Your task to perform on an android device: View the shopping cart on costco.com. Search for asus rog on costco.com, select the first entry, add it to the cart, then select checkout. Image 0: 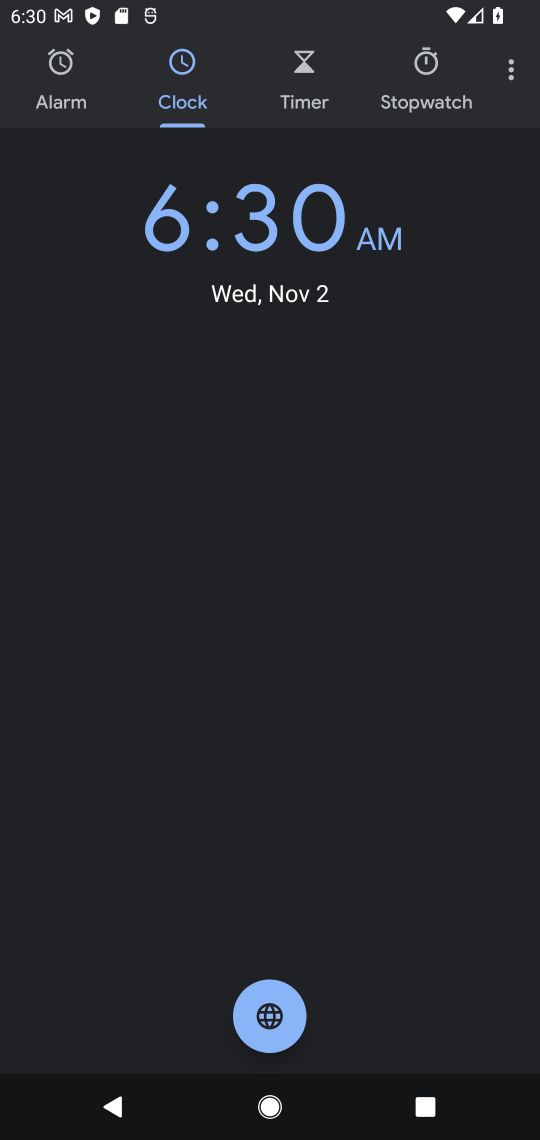
Step 0: press home button
Your task to perform on an android device: View the shopping cart on costco.com. Search for asus rog on costco.com, select the first entry, add it to the cart, then select checkout. Image 1: 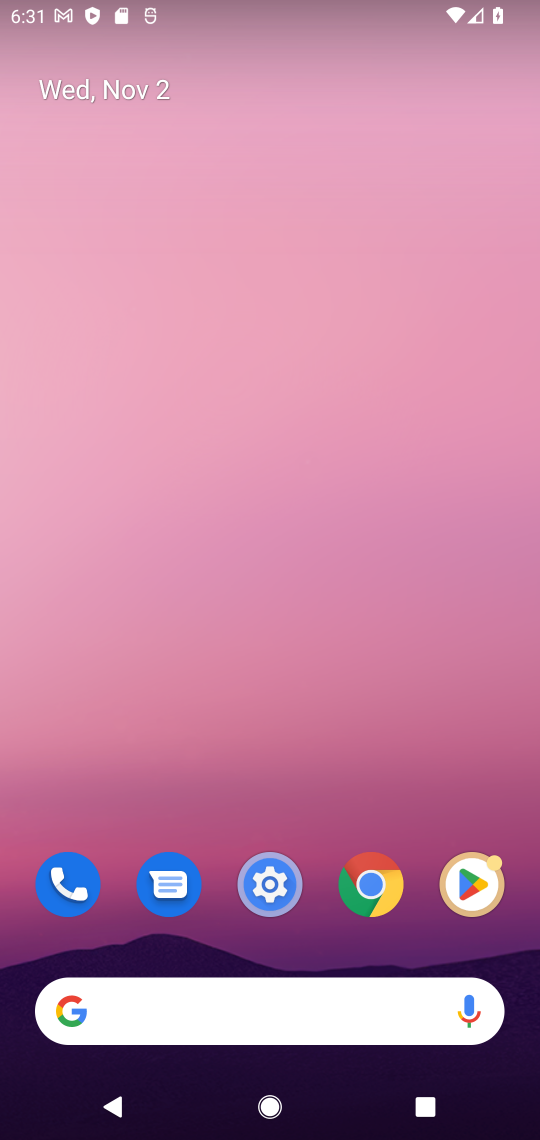
Step 1: click (175, 1019)
Your task to perform on an android device: View the shopping cart on costco.com. Search for asus rog on costco.com, select the first entry, add it to the cart, then select checkout. Image 2: 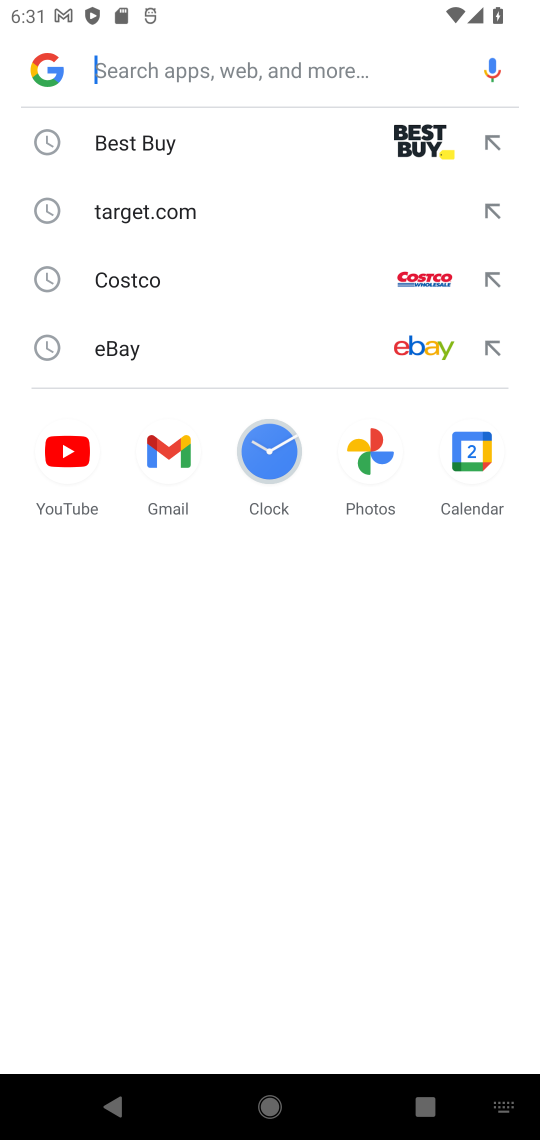
Step 2: click (150, 281)
Your task to perform on an android device: View the shopping cart on costco.com. Search for asus rog on costco.com, select the first entry, add it to the cart, then select checkout. Image 3: 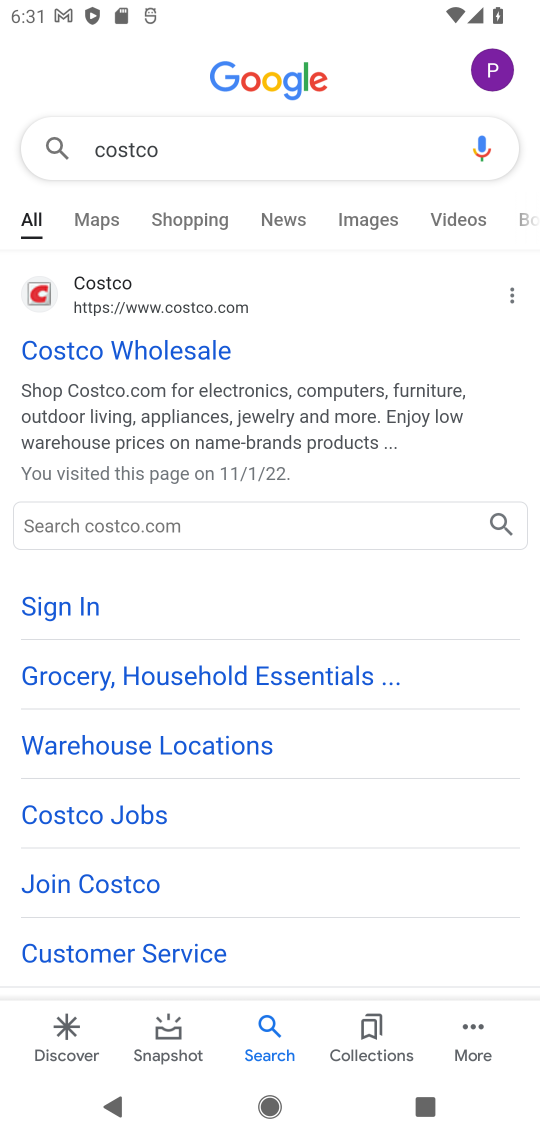
Step 3: click (148, 346)
Your task to perform on an android device: View the shopping cart on costco.com. Search for asus rog on costco.com, select the first entry, add it to the cart, then select checkout. Image 4: 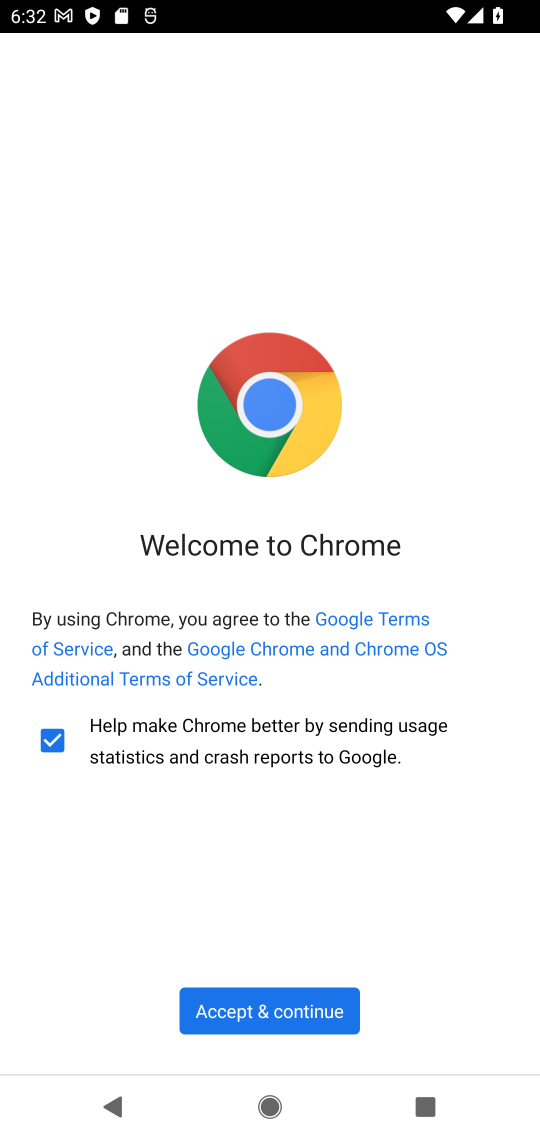
Step 4: click (247, 1021)
Your task to perform on an android device: View the shopping cart on costco.com. Search for asus rog on costco.com, select the first entry, add it to the cart, then select checkout. Image 5: 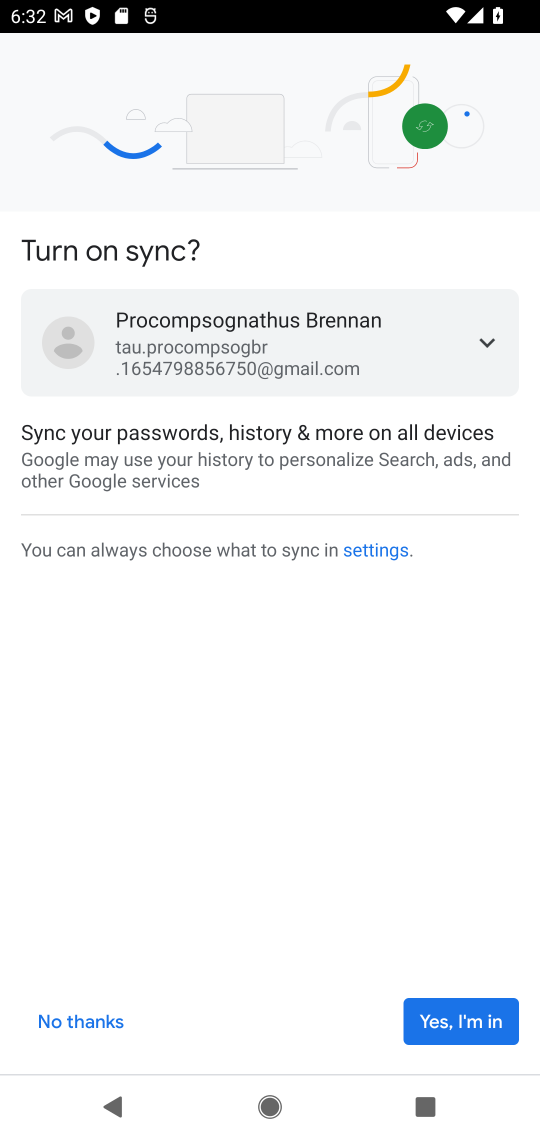
Step 5: click (408, 1038)
Your task to perform on an android device: View the shopping cart on costco.com. Search for asus rog on costco.com, select the first entry, add it to the cart, then select checkout. Image 6: 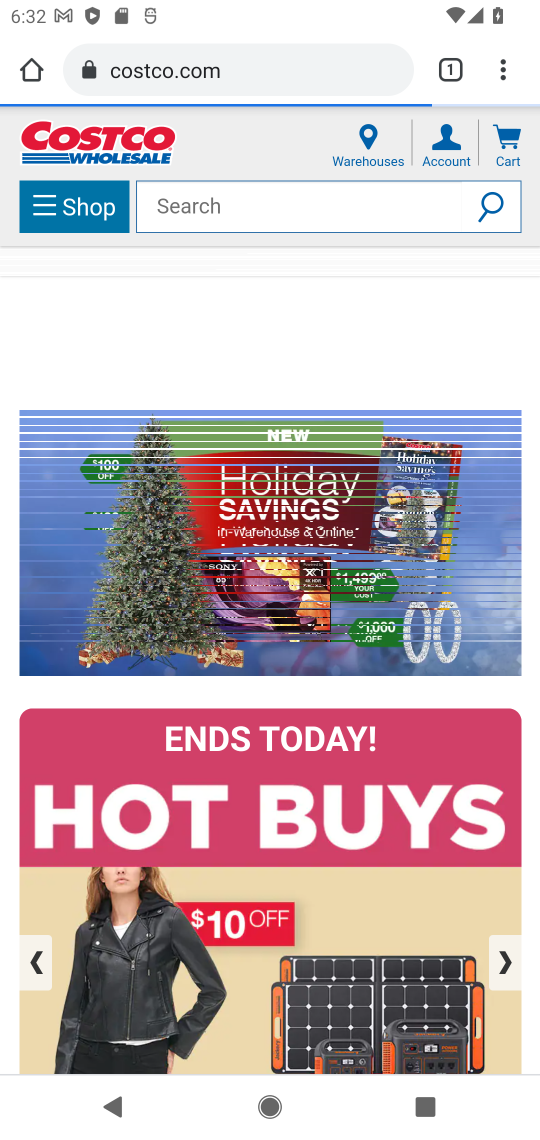
Step 6: click (230, 217)
Your task to perform on an android device: View the shopping cart on costco.com. Search for asus rog on costco.com, select the first entry, add it to the cart, then select checkout. Image 7: 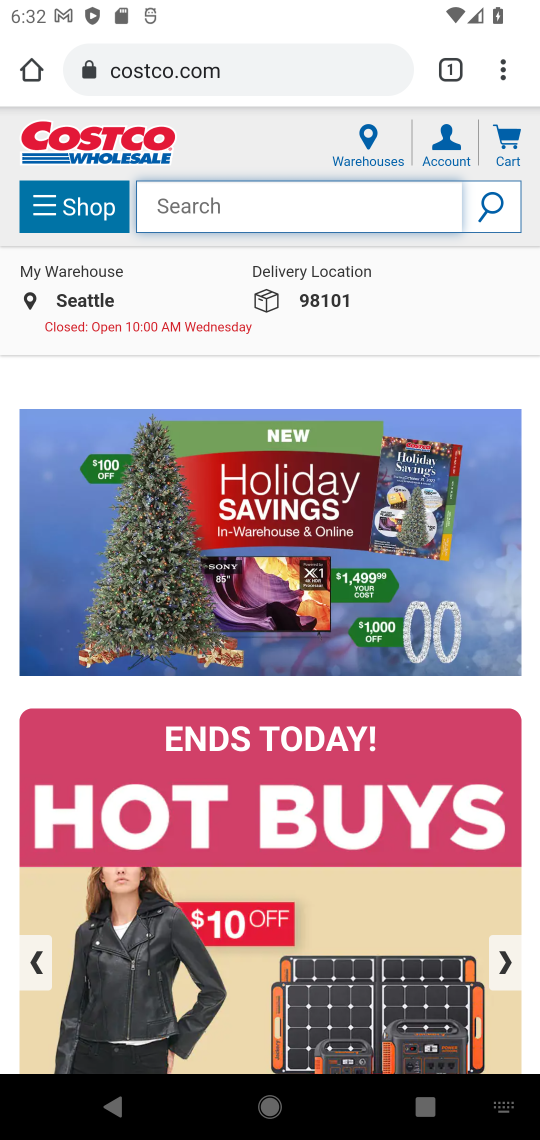
Step 7: type "aus ror"
Your task to perform on an android device: View the shopping cart on costco.com. Search for asus rog on costco.com, select the first entry, add it to the cart, then select checkout. Image 8: 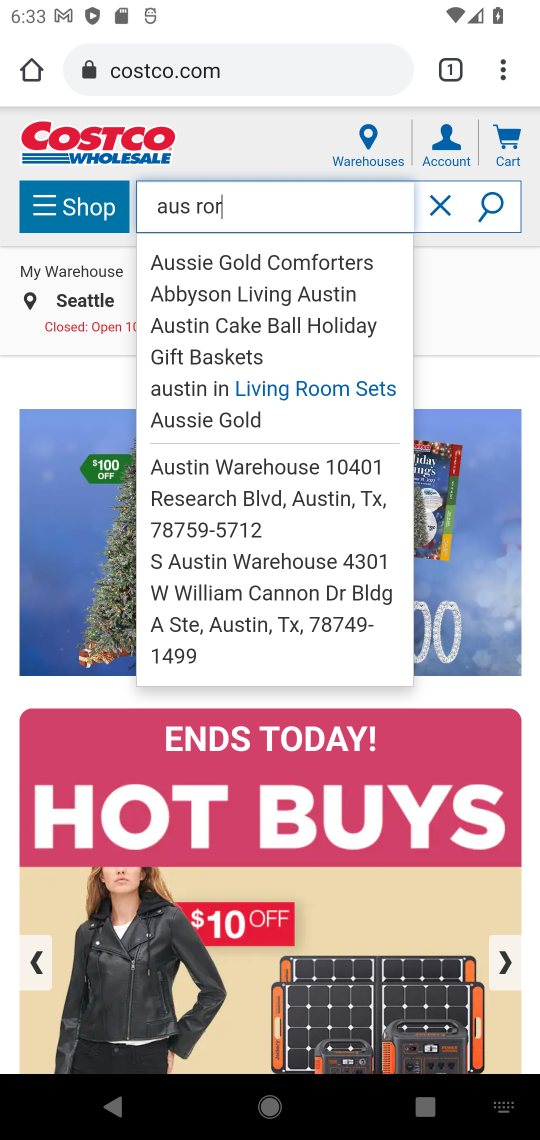
Step 8: type "g"
Your task to perform on an android device: View the shopping cart on costco.com. Search for asus rog on costco.com, select the first entry, add it to the cart, then select checkout. Image 9: 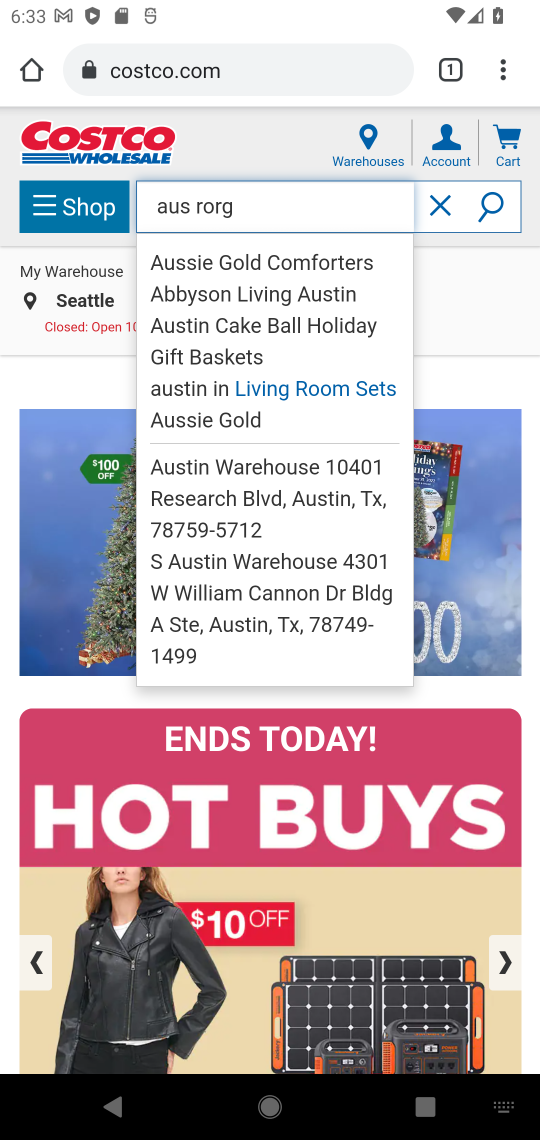
Step 9: click (476, 217)
Your task to perform on an android device: View the shopping cart on costco.com. Search for asus rog on costco.com, select the first entry, add it to the cart, then select checkout. Image 10: 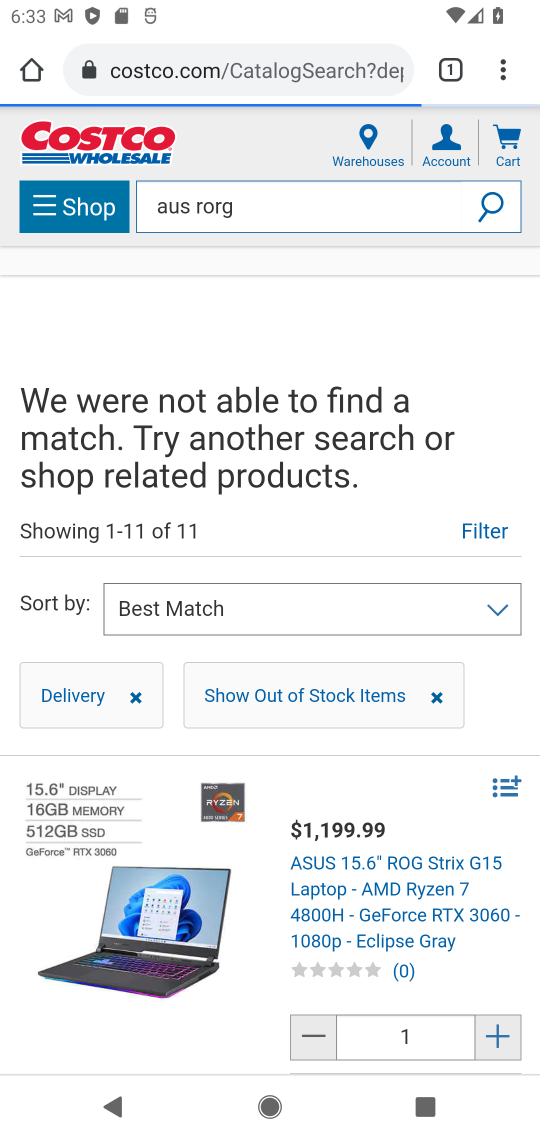
Step 10: click (492, 1043)
Your task to perform on an android device: View the shopping cart on costco.com. Search for asus rog on costco.com, select the first entry, add it to the cart, then select checkout. Image 11: 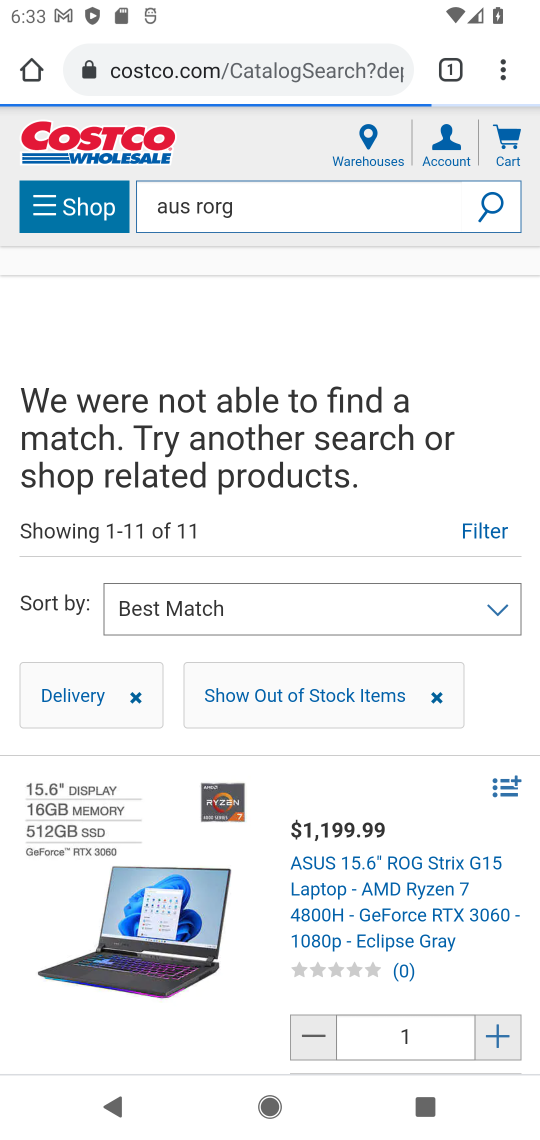
Step 11: task complete